Your task to perform on an android device: move a message to another label in the gmail app Image 0: 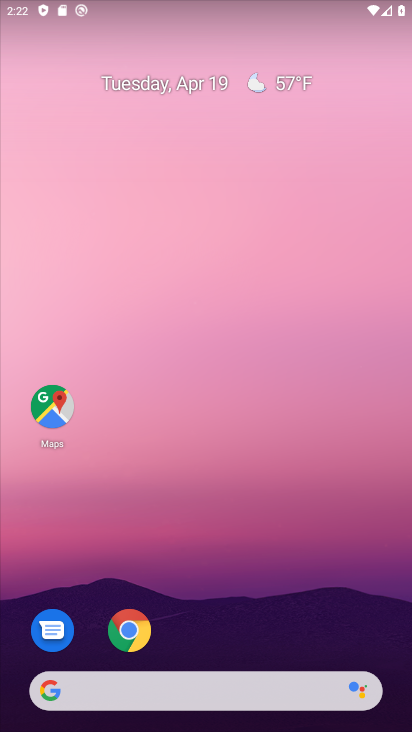
Step 0: drag from (223, 435) to (183, 105)
Your task to perform on an android device: move a message to another label in the gmail app Image 1: 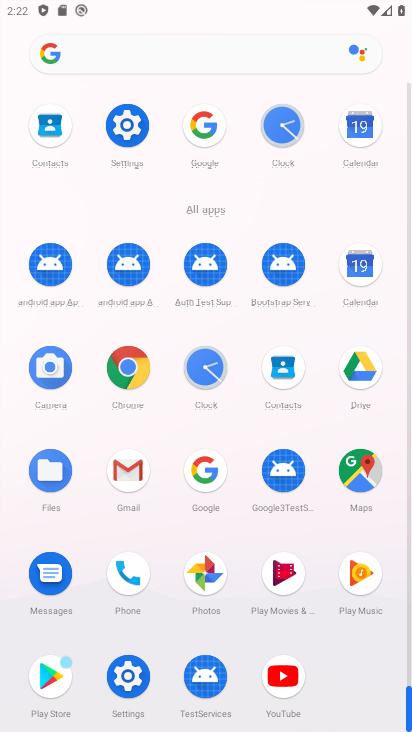
Step 1: click (129, 467)
Your task to perform on an android device: move a message to another label in the gmail app Image 2: 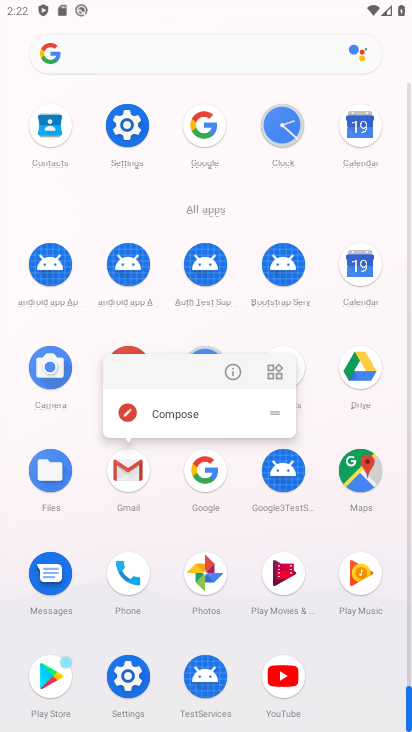
Step 2: click (131, 480)
Your task to perform on an android device: move a message to another label in the gmail app Image 3: 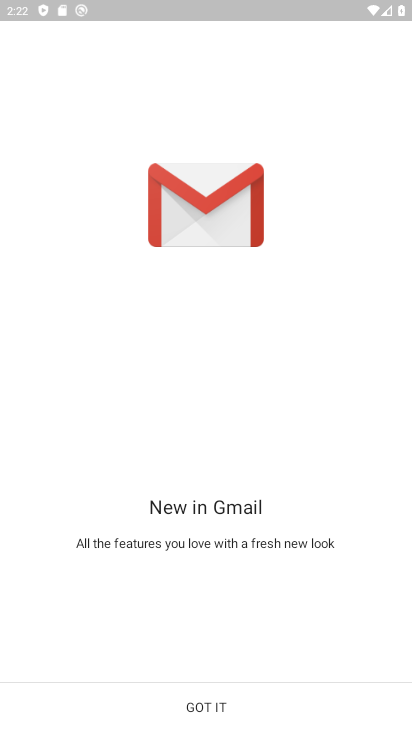
Step 3: click (216, 701)
Your task to perform on an android device: move a message to another label in the gmail app Image 4: 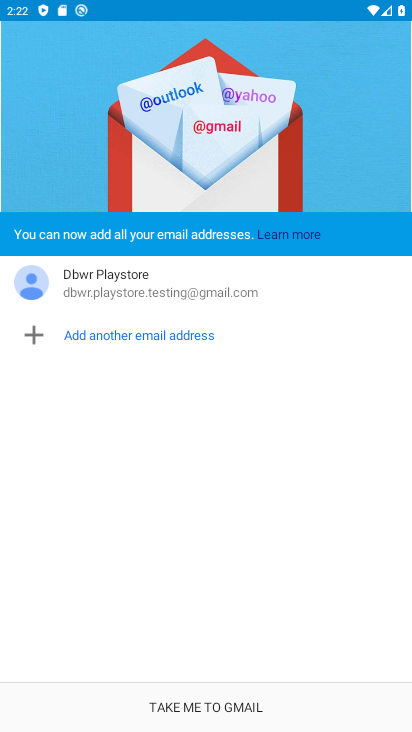
Step 4: click (212, 696)
Your task to perform on an android device: move a message to another label in the gmail app Image 5: 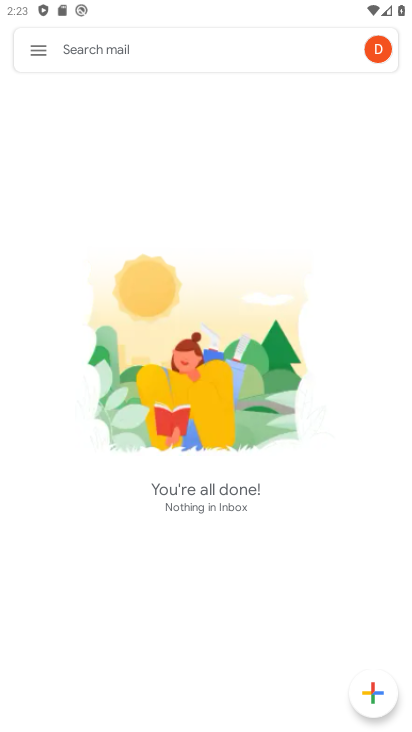
Step 5: click (34, 49)
Your task to perform on an android device: move a message to another label in the gmail app Image 6: 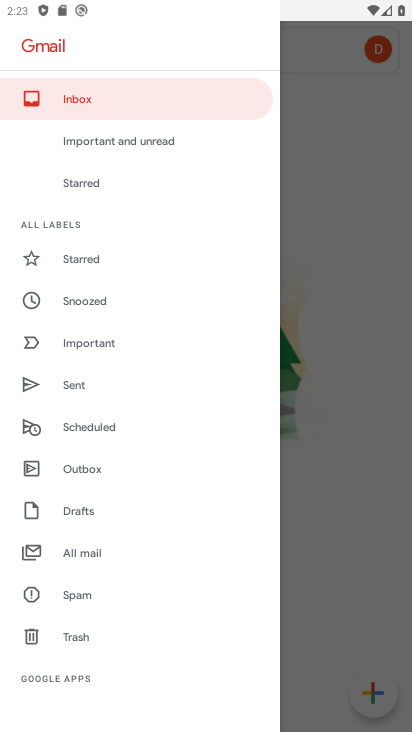
Step 6: click (102, 552)
Your task to perform on an android device: move a message to another label in the gmail app Image 7: 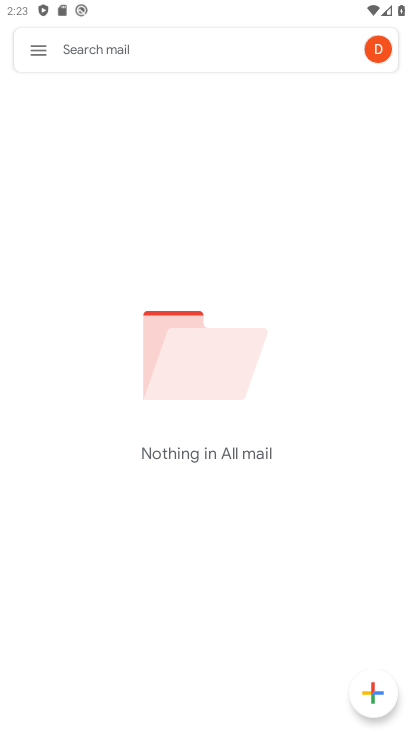
Step 7: task complete